Your task to perform on an android device: turn on the 12-hour format for clock Image 0: 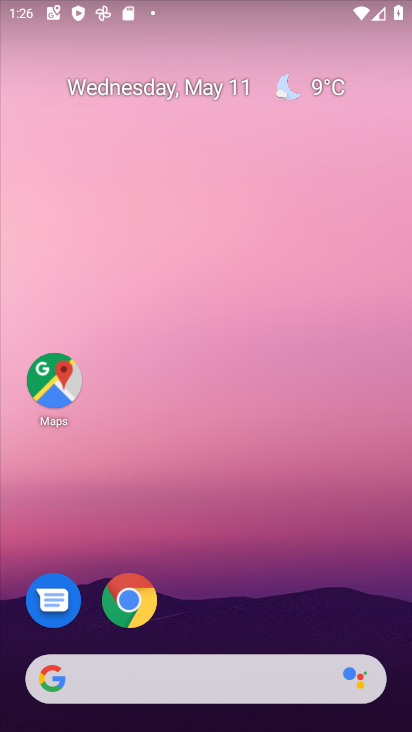
Step 0: drag from (240, 729) to (315, 9)
Your task to perform on an android device: turn on the 12-hour format for clock Image 1: 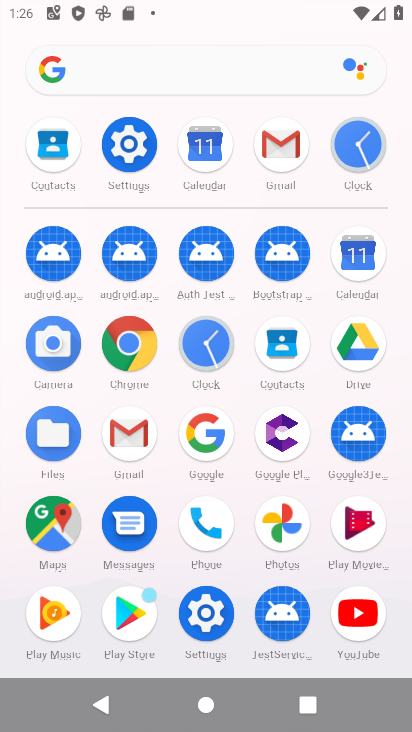
Step 1: click (375, 148)
Your task to perform on an android device: turn on the 12-hour format for clock Image 2: 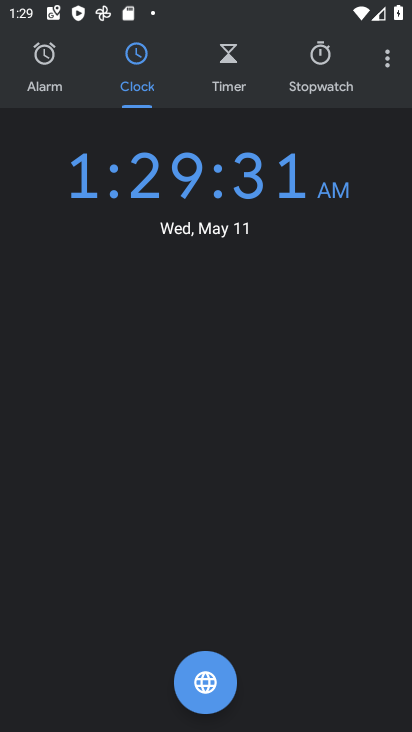
Step 2: click (384, 56)
Your task to perform on an android device: turn on the 12-hour format for clock Image 3: 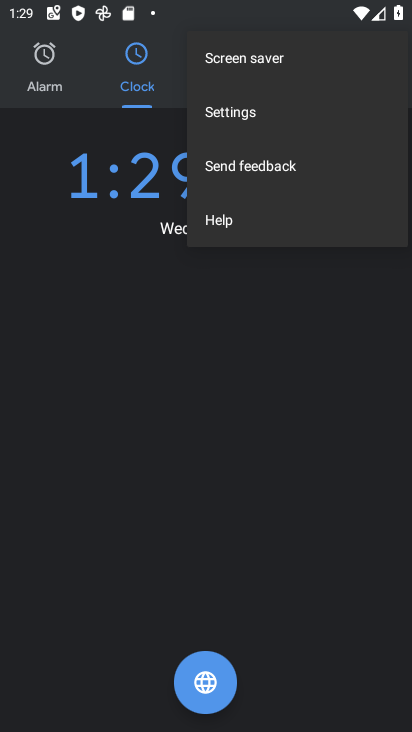
Step 3: click (298, 122)
Your task to perform on an android device: turn on the 12-hour format for clock Image 4: 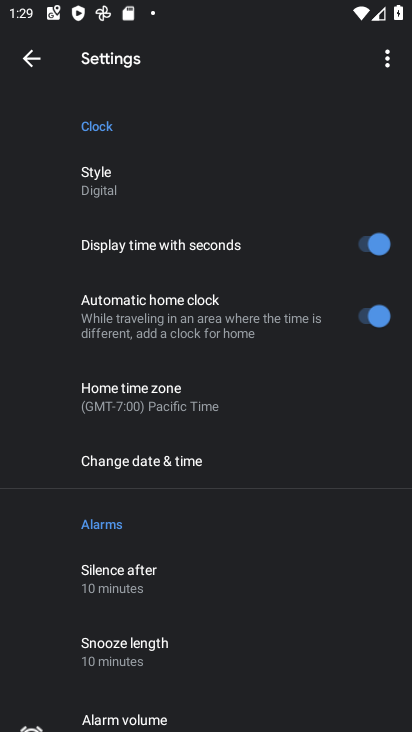
Step 4: click (189, 462)
Your task to perform on an android device: turn on the 12-hour format for clock Image 5: 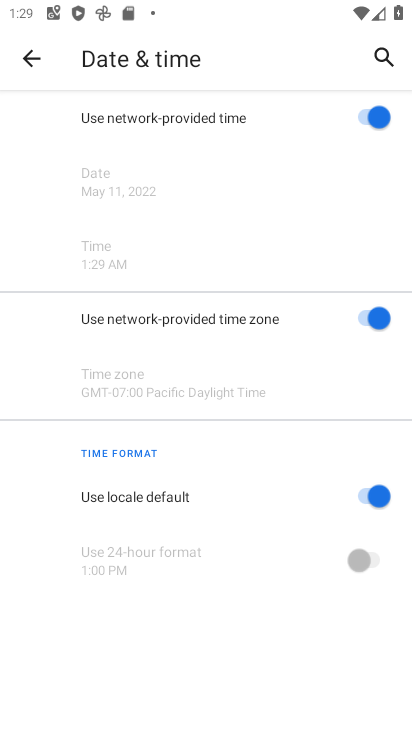
Step 5: task complete